Your task to perform on an android device: What's a good restaurant in Los Angeles? Image 0: 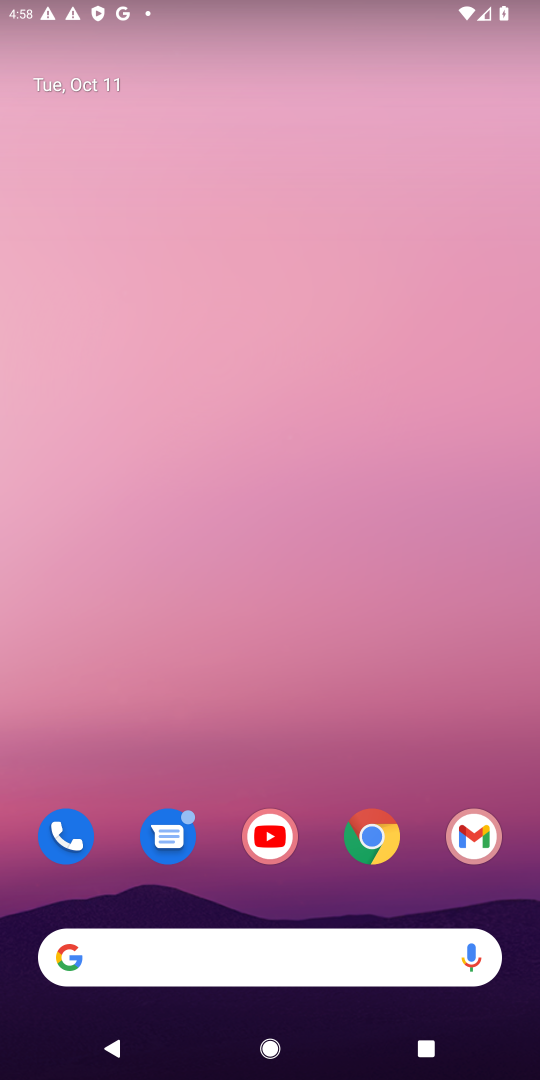
Step 0: click (370, 843)
Your task to perform on an android device: What's a good restaurant in Los Angeles? Image 1: 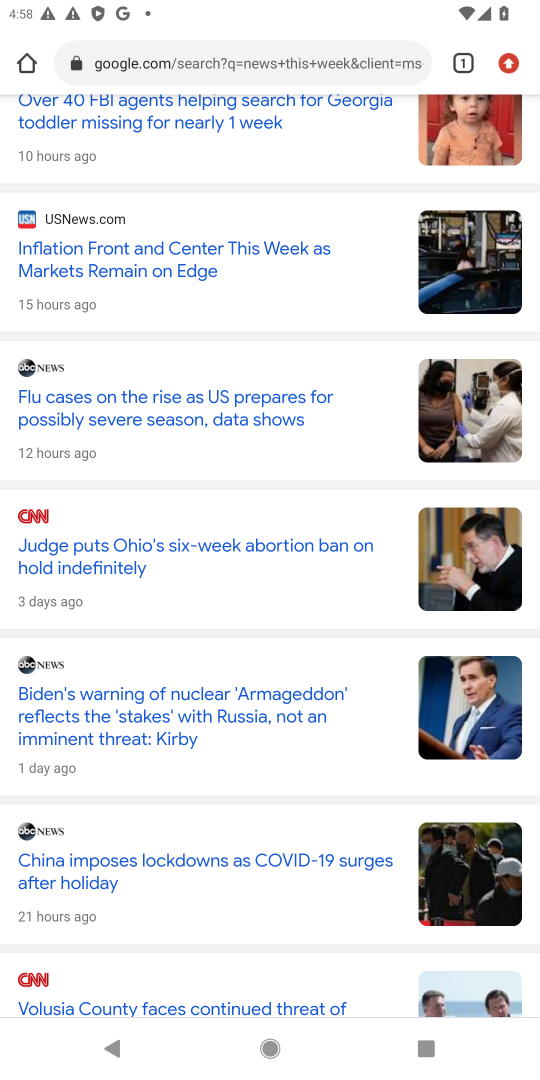
Step 1: click (352, 53)
Your task to perform on an android device: What's a good restaurant in Los Angeles? Image 2: 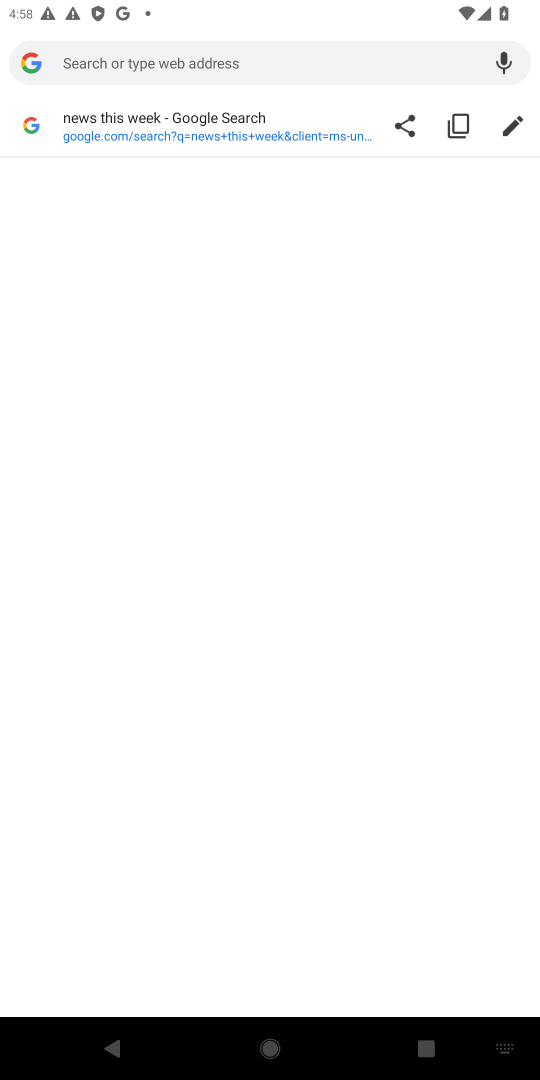
Step 2: type "good restaurant in Los Angeles"
Your task to perform on an android device: What's a good restaurant in Los Angeles? Image 3: 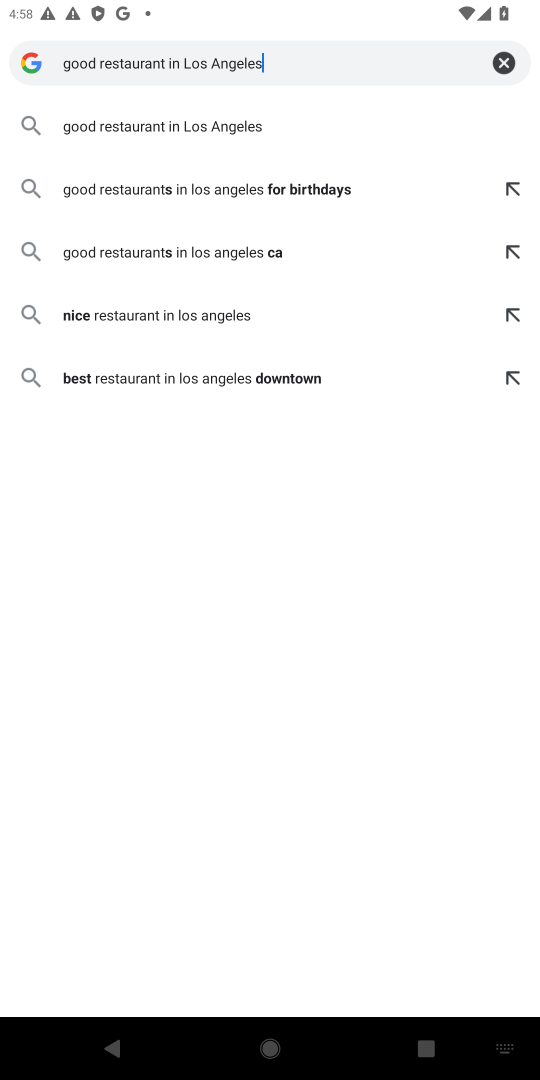
Step 3: click (160, 116)
Your task to perform on an android device: What's a good restaurant in Los Angeles? Image 4: 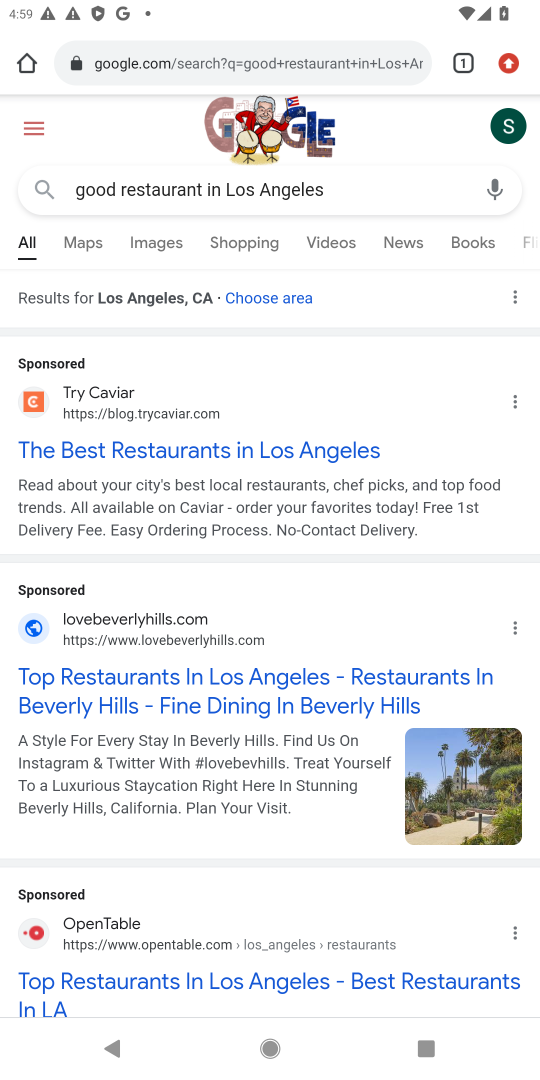
Step 4: drag from (297, 896) to (331, 201)
Your task to perform on an android device: What's a good restaurant in Los Angeles? Image 5: 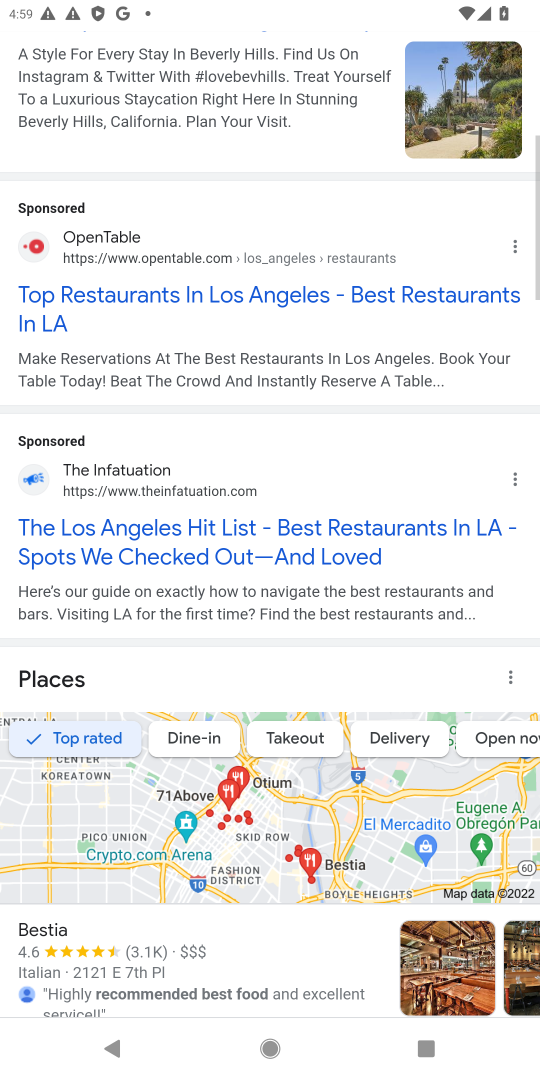
Step 5: drag from (46, 908) to (289, 215)
Your task to perform on an android device: What's a good restaurant in Los Angeles? Image 6: 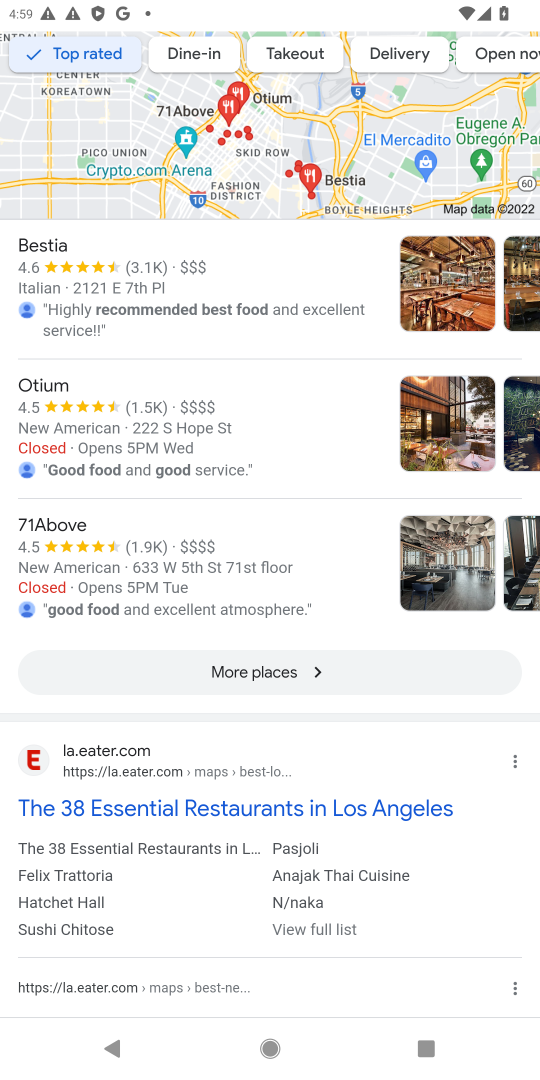
Step 6: click (265, 670)
Your task to perform on an android device: What's a good restaurant in Los Angeles? Image 7: 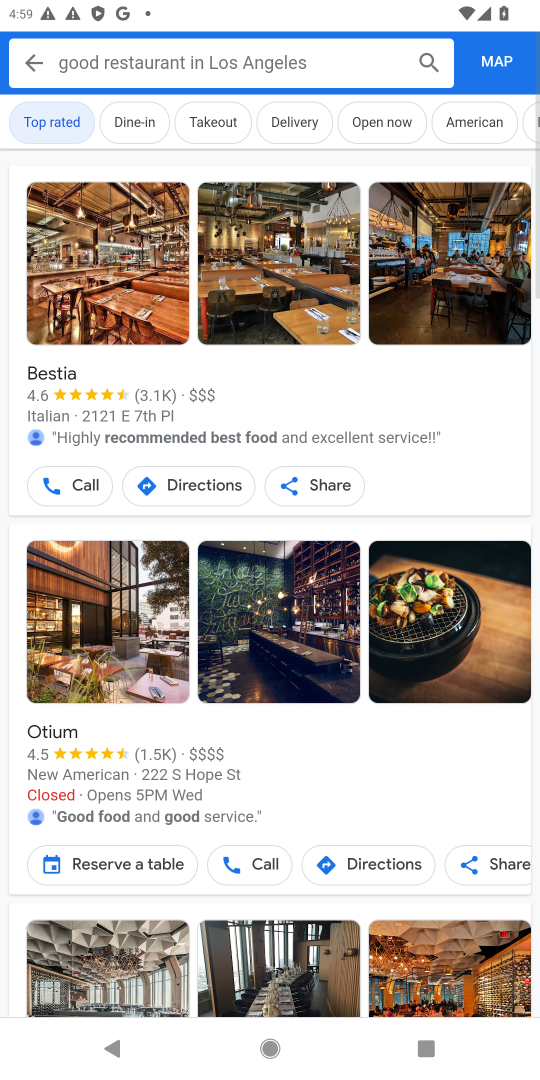
Step 7: task complete